Your task to perform on an android device: find which apps use the phone's location Image 0: 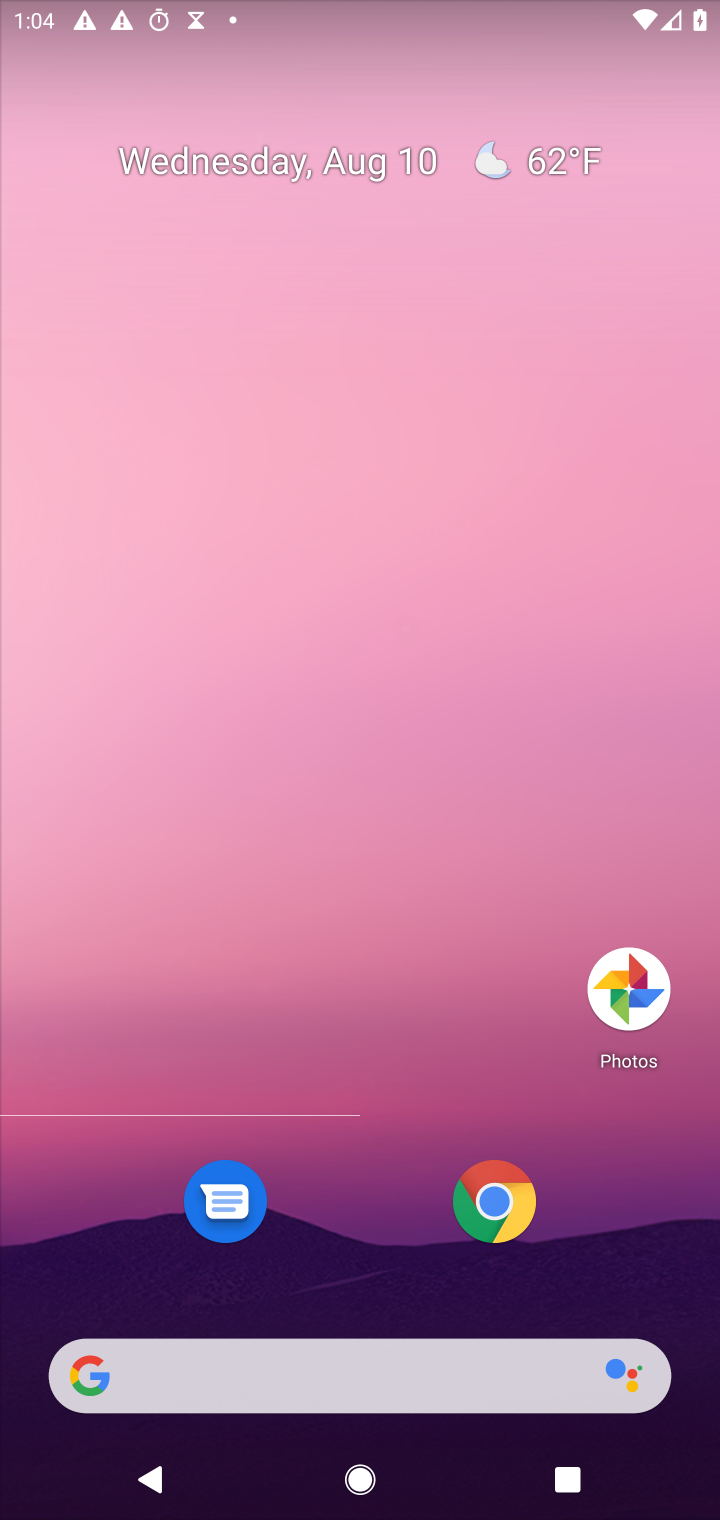
Step 0: drag from (316, 524) to (331, 61)
Your task to perform on an android device: find which apps use the phone's location Image 1: 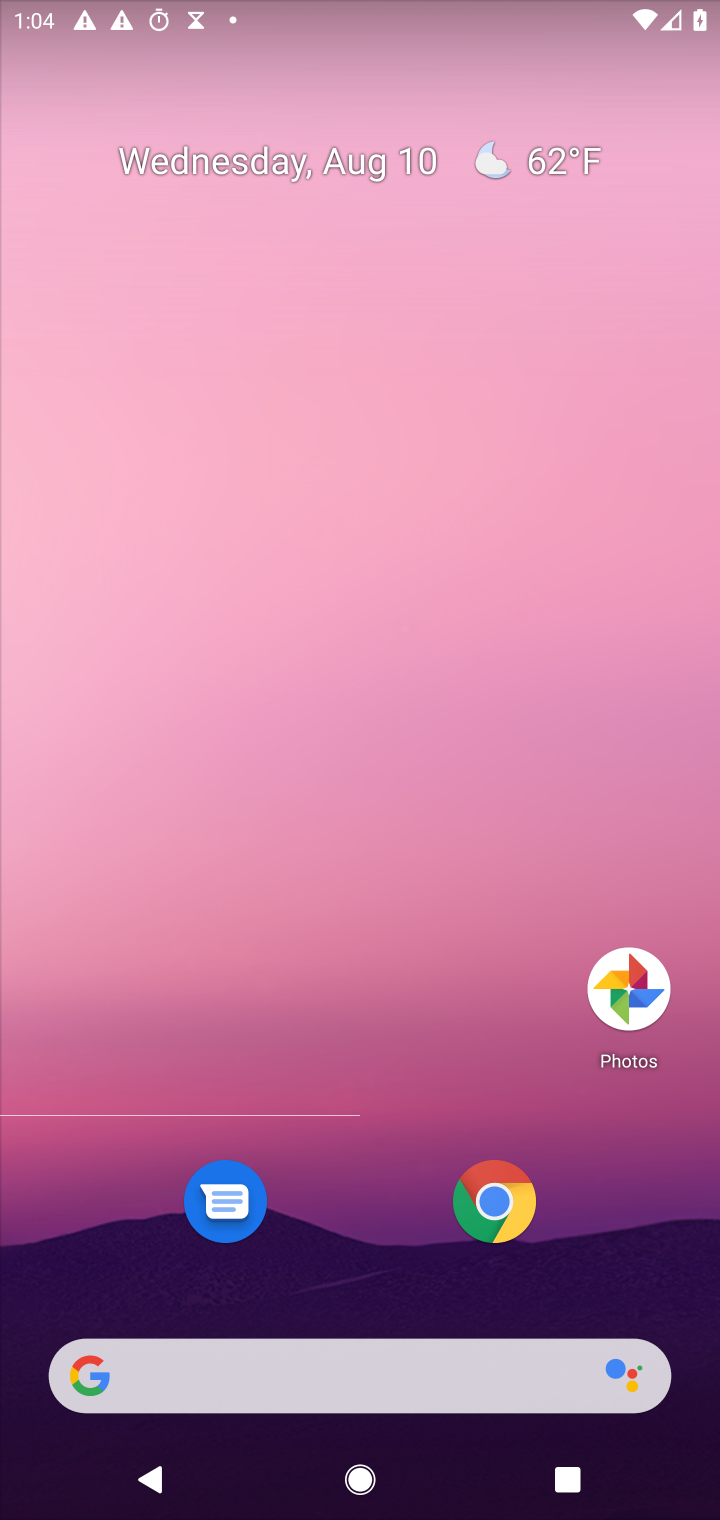
Step 1: drag from (281, 459) to (655, 897)
Your task to perform on an android device: find which apps use the phone's location Image 2: 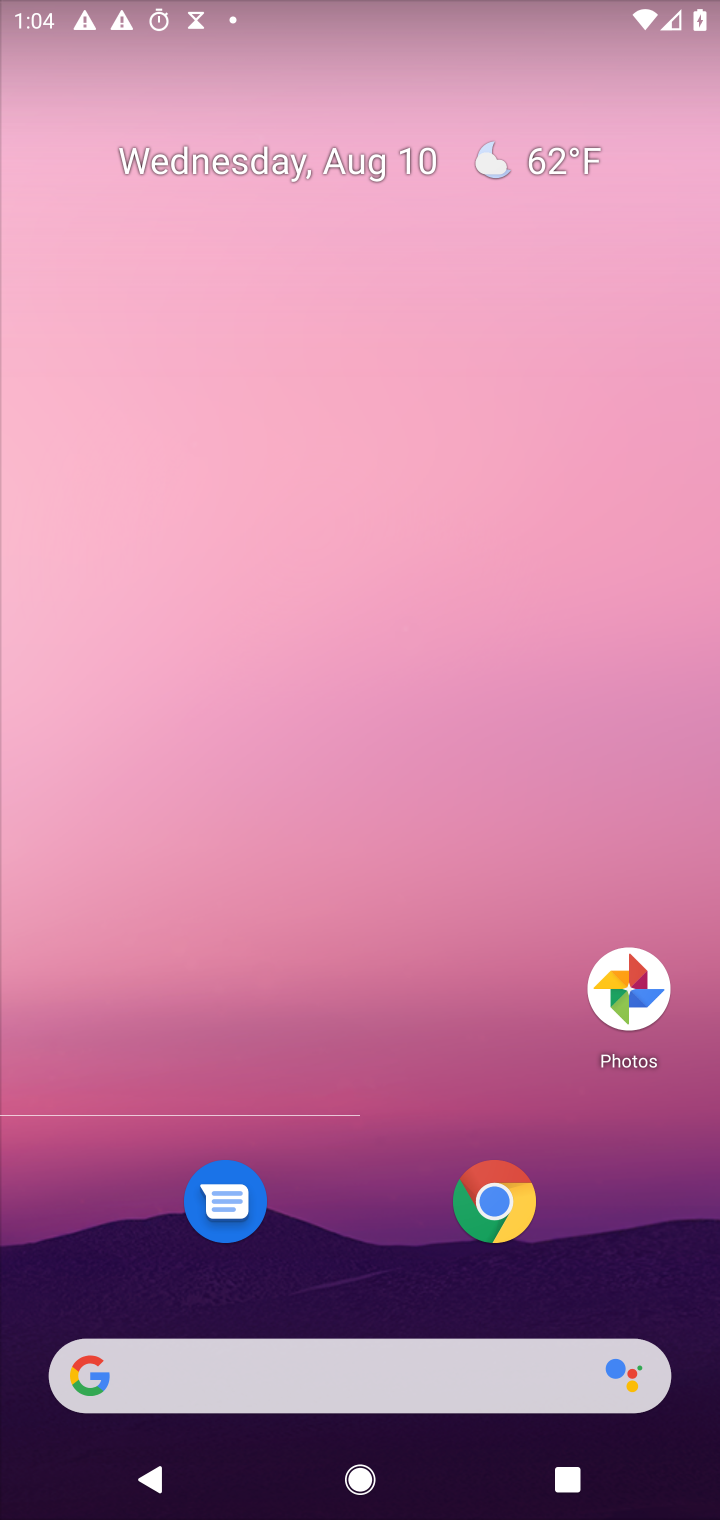
Step 2: drag from (299, 969) to (597, 321)
Your task to perform on an android device: find which apps use the phone's location Image 3: 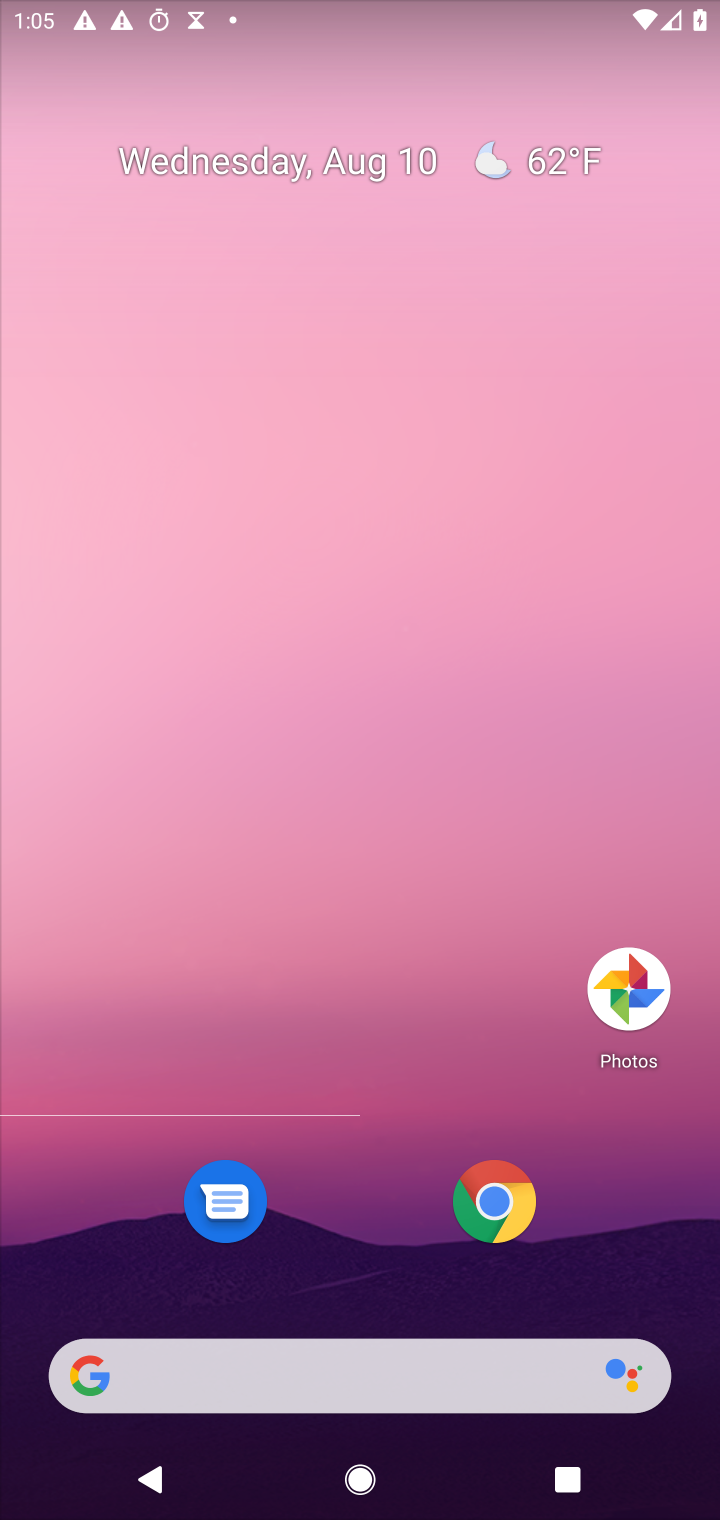
Step 3: drag from (288, 1021) to (498, 347)
Your task to perform on an android device: find which apps use the phone's location Image 4: 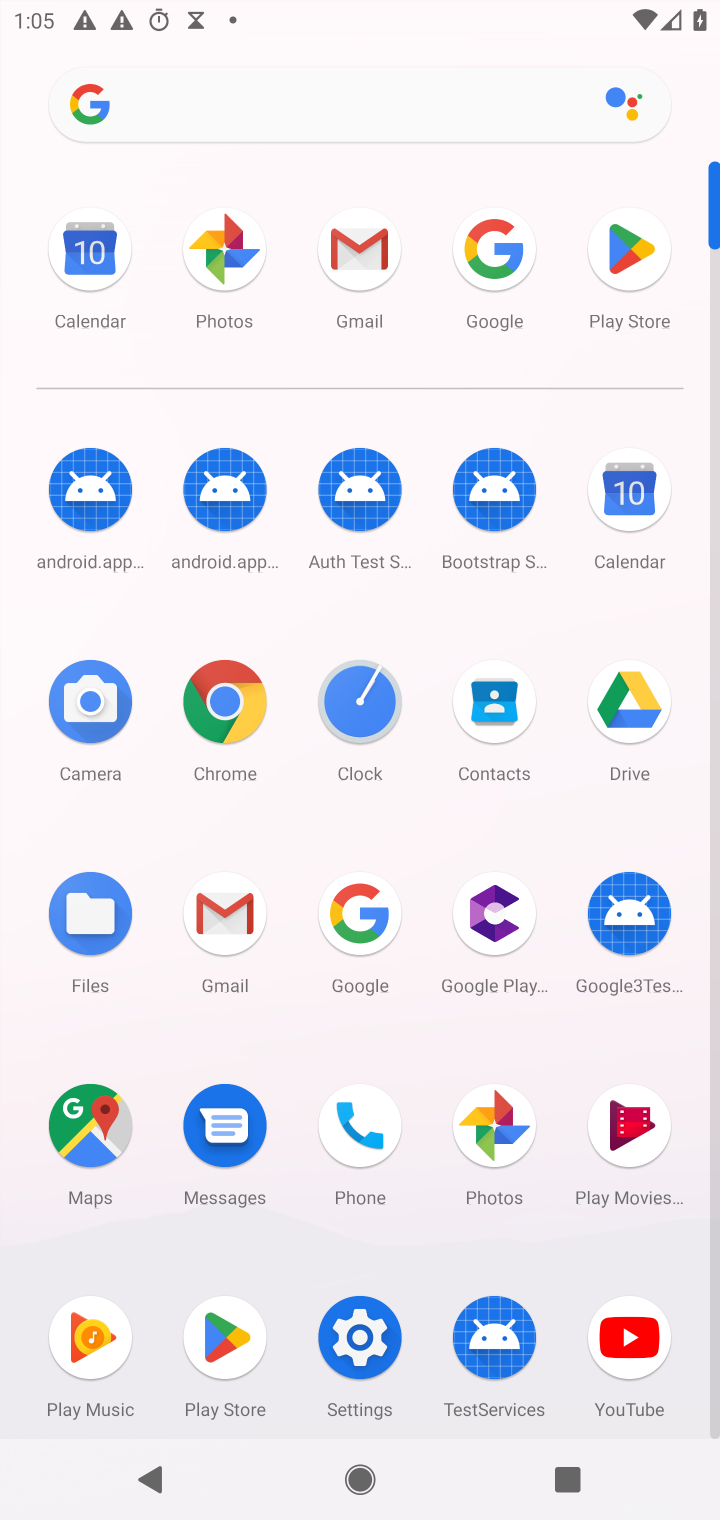
Step 4: click (354, 1338)
Your task to perform on an android device: find which apps use the phone's location Image 5: 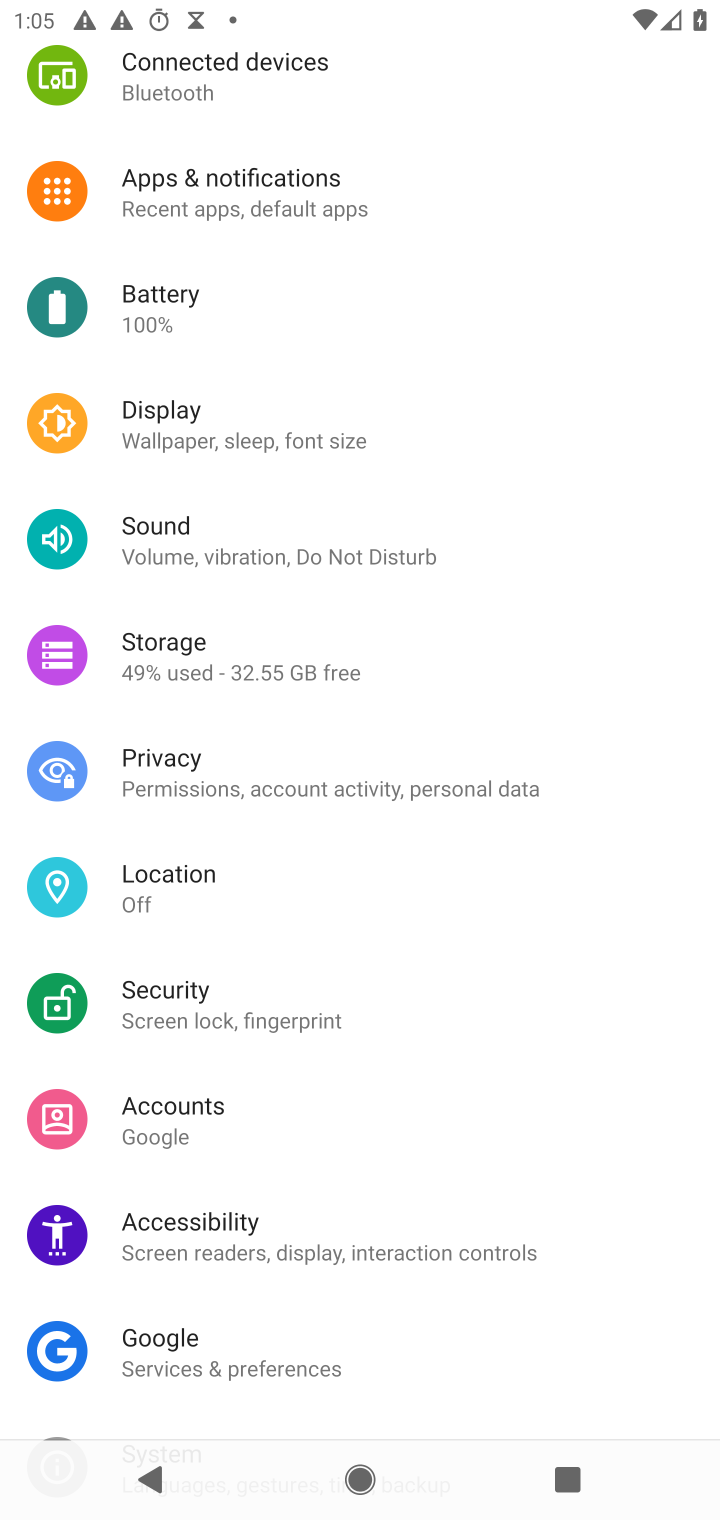
Step 5: click (189, 901)
Your task to perform on an android device: find which apps use the phone's location Image 6: 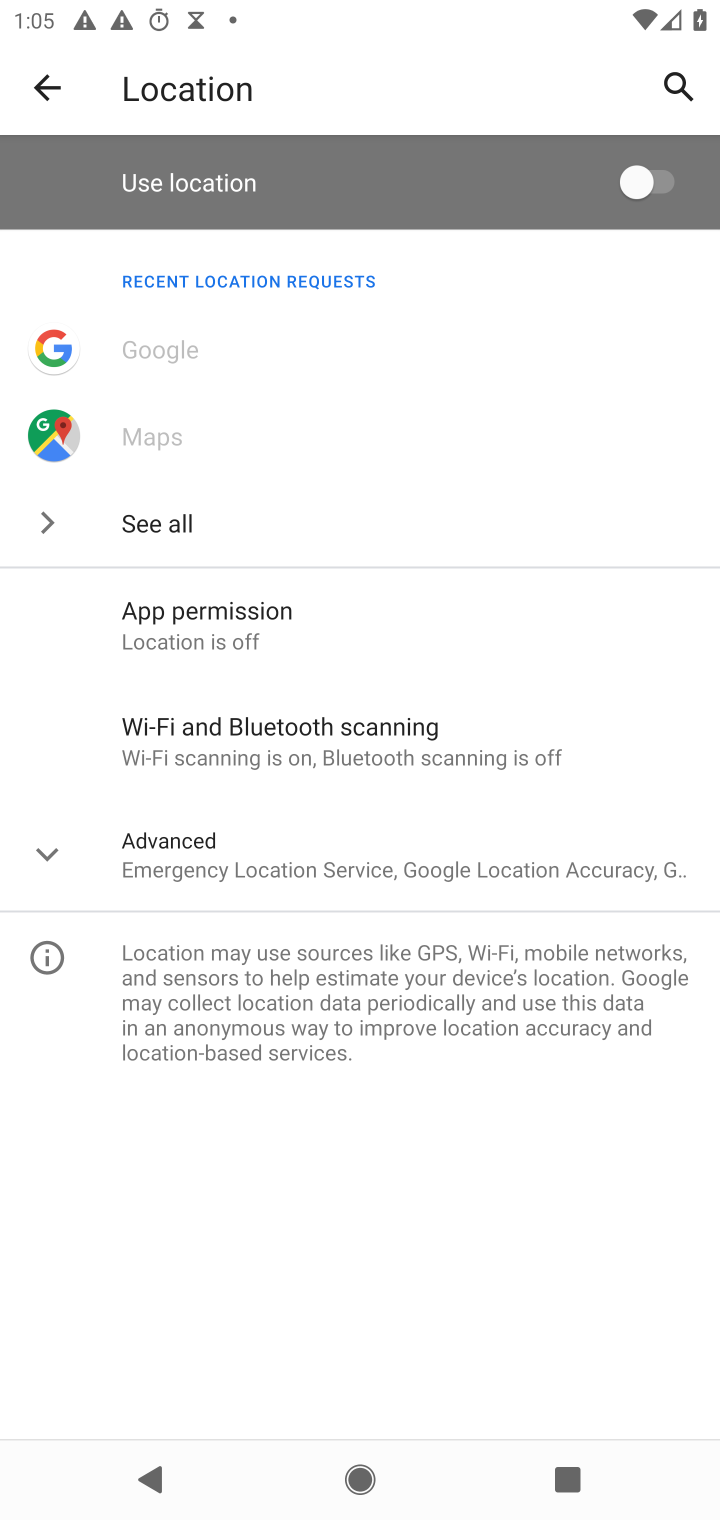
Step 6: click (216, 611)
Your task to perform on an android device: find which apps use the phone's location Image 7: 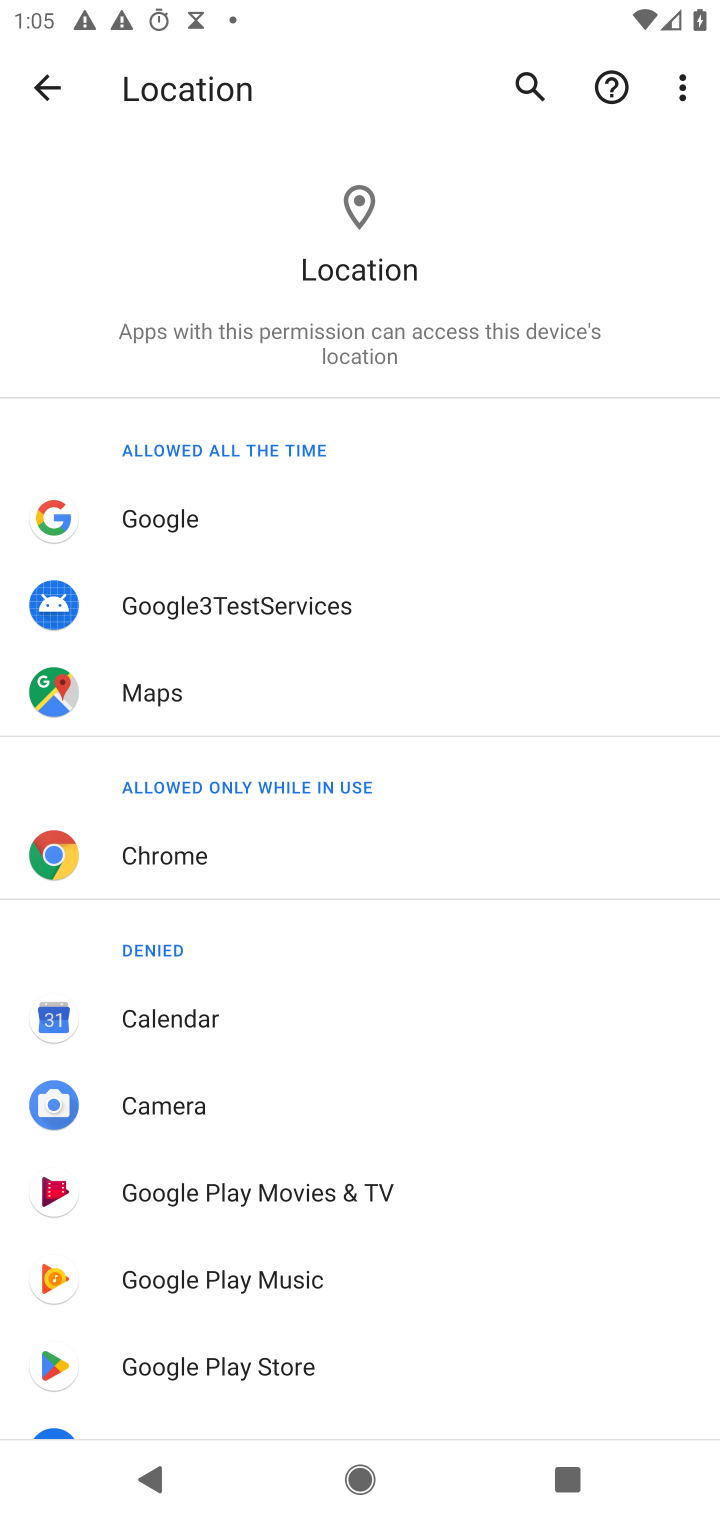
Step 7: task complete